Your task to perform on an android device: toggle data saver in the chrome app Image 0: 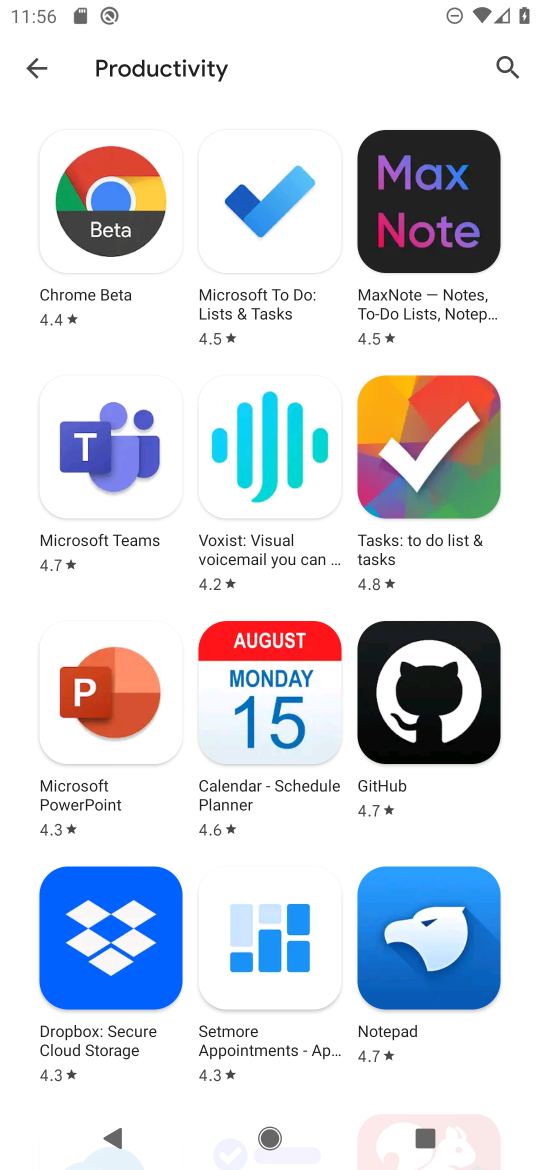
Step 0: press home button
Your task to perform on an android device: toggle data saver in the chrome app Image 1: 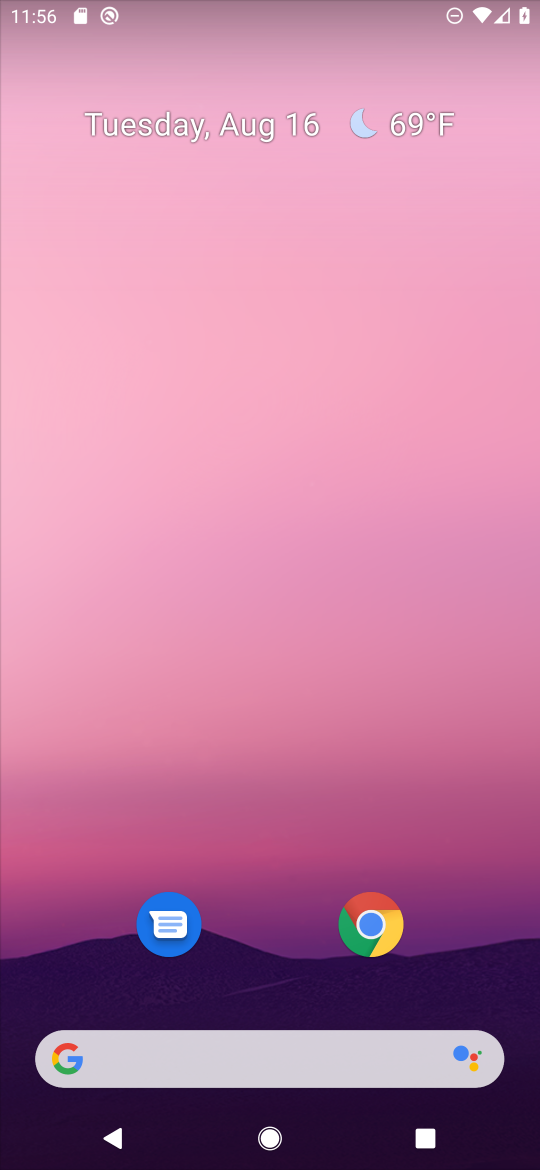
Step 1: click (365, 924)
Your task to perform on an android device: toggle data saver in the chrome app Image 2: 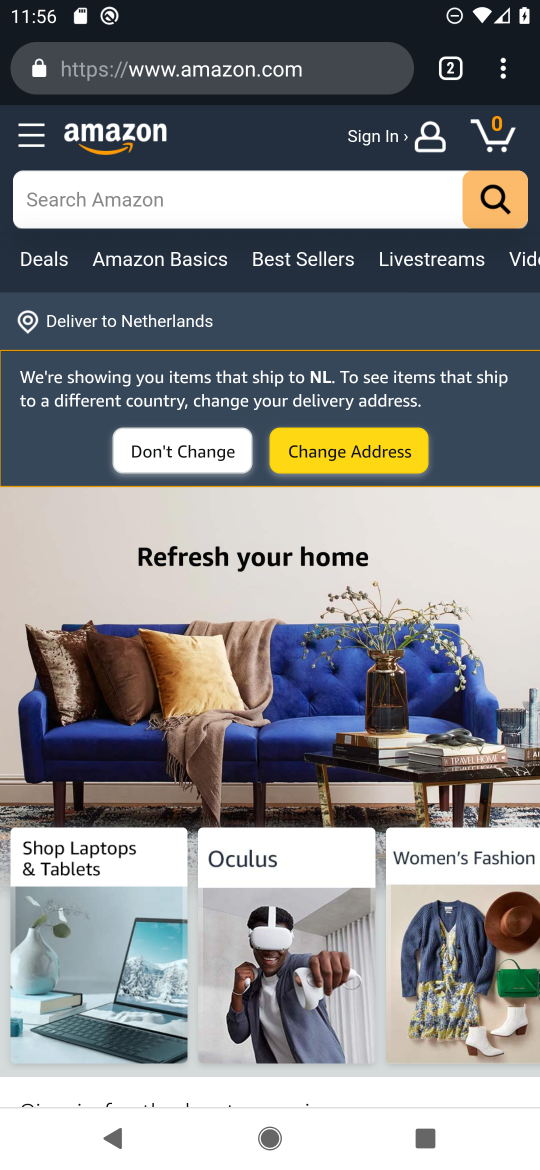
Step 2: click (517, 60)
Your task to perform on an android device: toggle data saver in the chrome app Image 3: 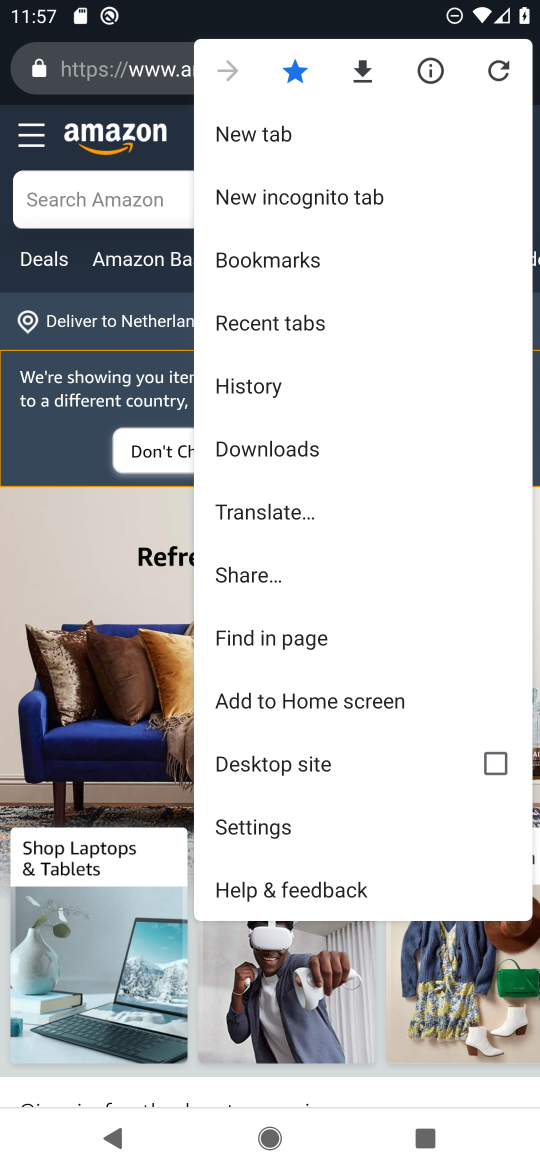
Step 3: click (295, 825)
Your task to perform on an android device: toggle data saver in the chrome app Image 4: 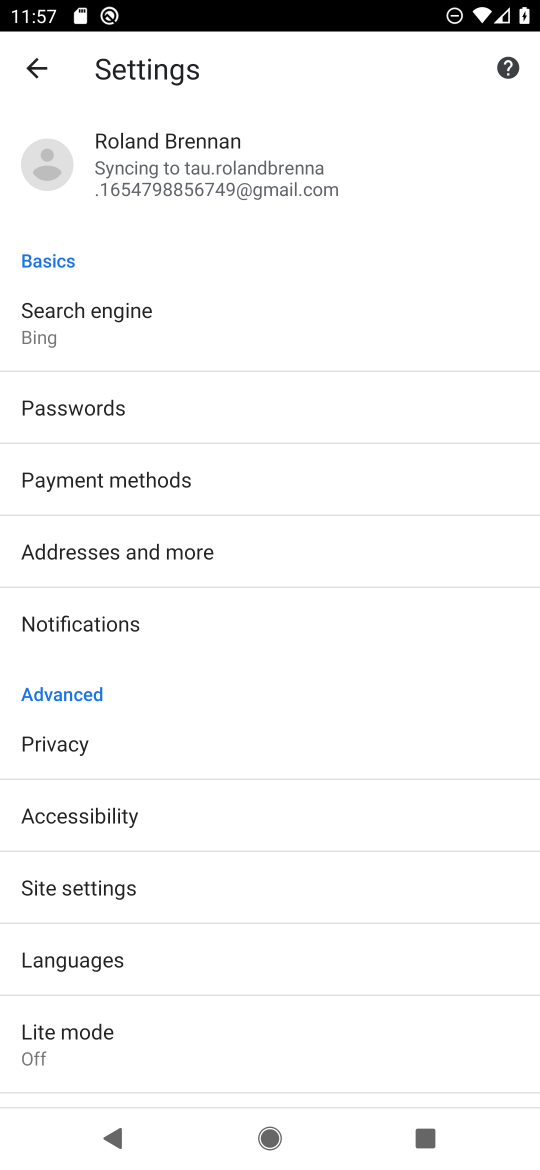
Step 4: click (167, 1039)
Your task to perform on an android device: toggle data saver in the chrome app Image 5: 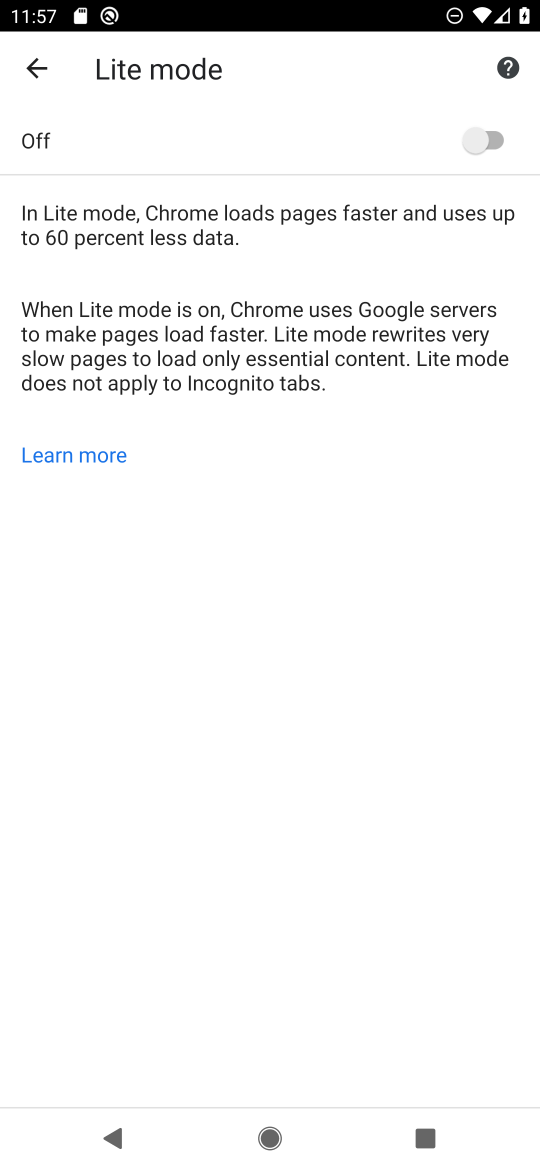
Step 5: click (485, 147)
Your task to perform on an android device: toggle data saver in the chrome app Image 6: 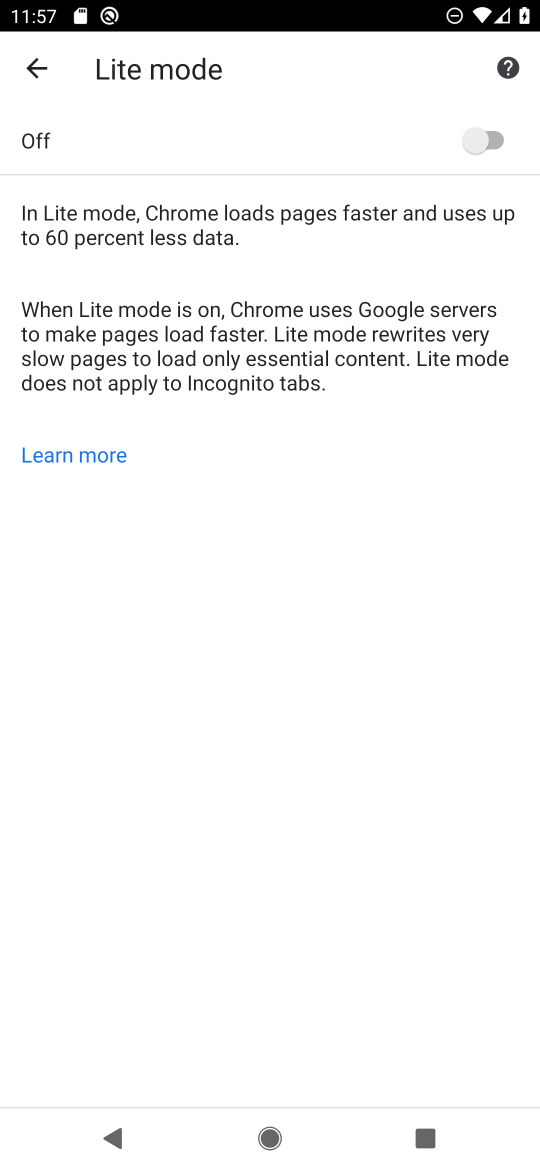
Step 6: click (485, 147)
Your task to perform on an android device: toggle data saver in the chrome app Image 7: 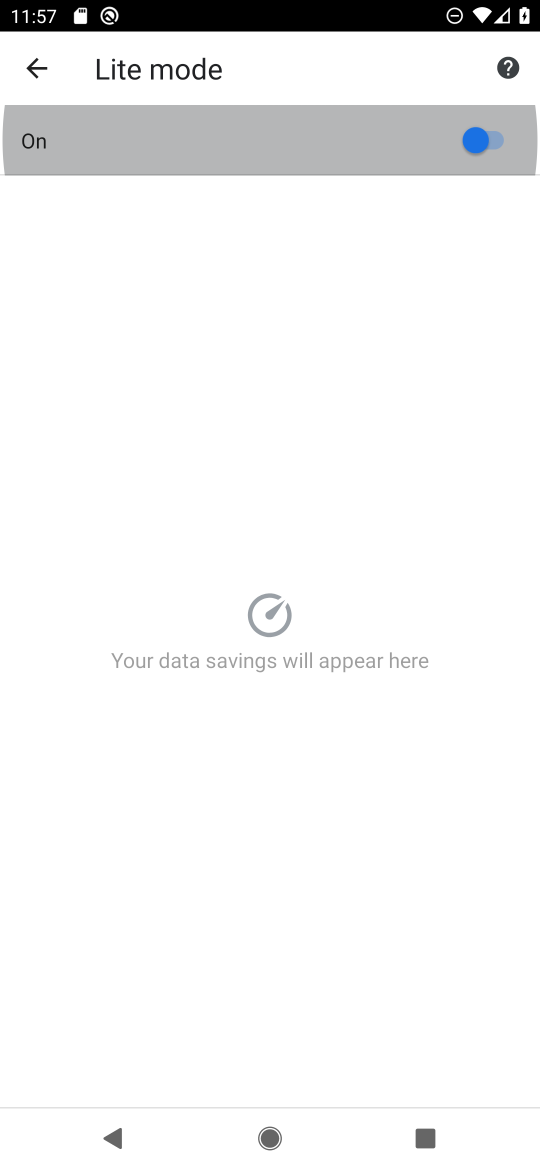
Step 7: click (485, 147)
Your task to perform on an android device: toggle data saver in the chrome app Image 8: 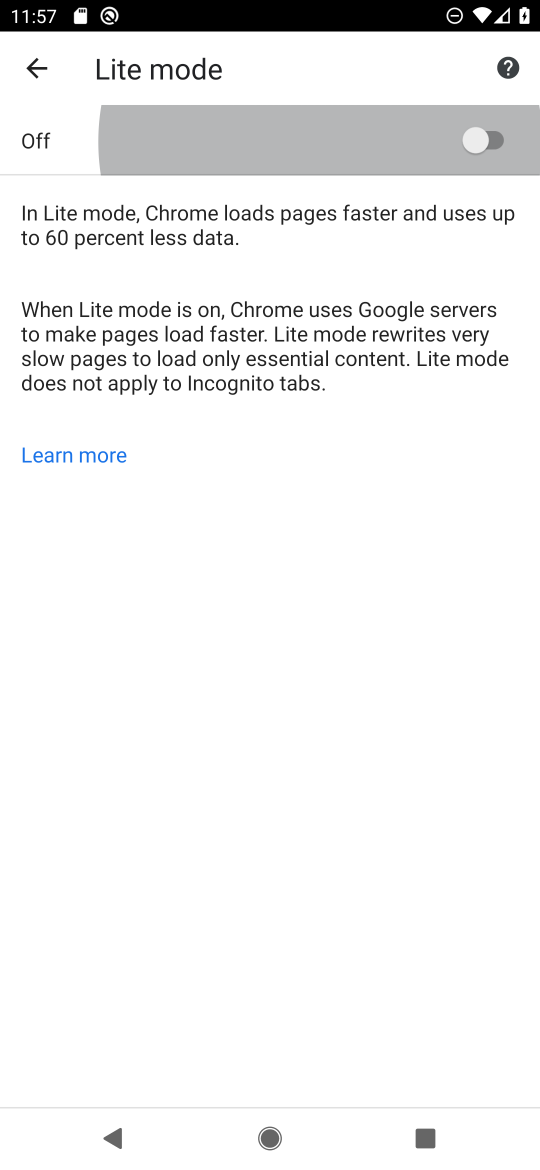
Step 8: click (485, 147)
Your task to perform on an android device: toggle data saver in the chrome app Image 9: 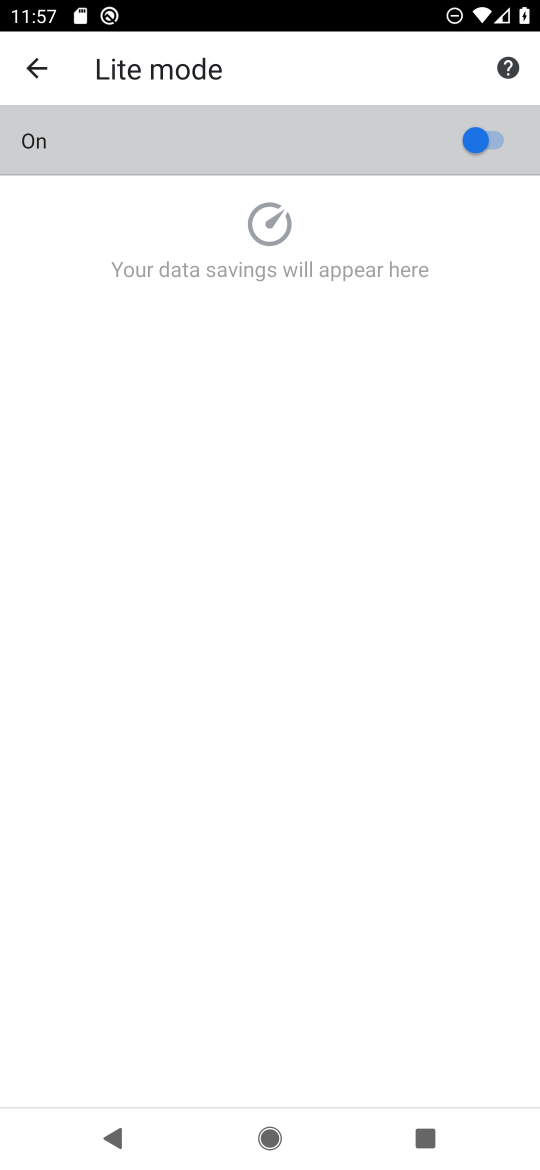
Step 9: click (485, 147)
Your task to perform on an android device: toggle data saver in the chrome app Image 10: 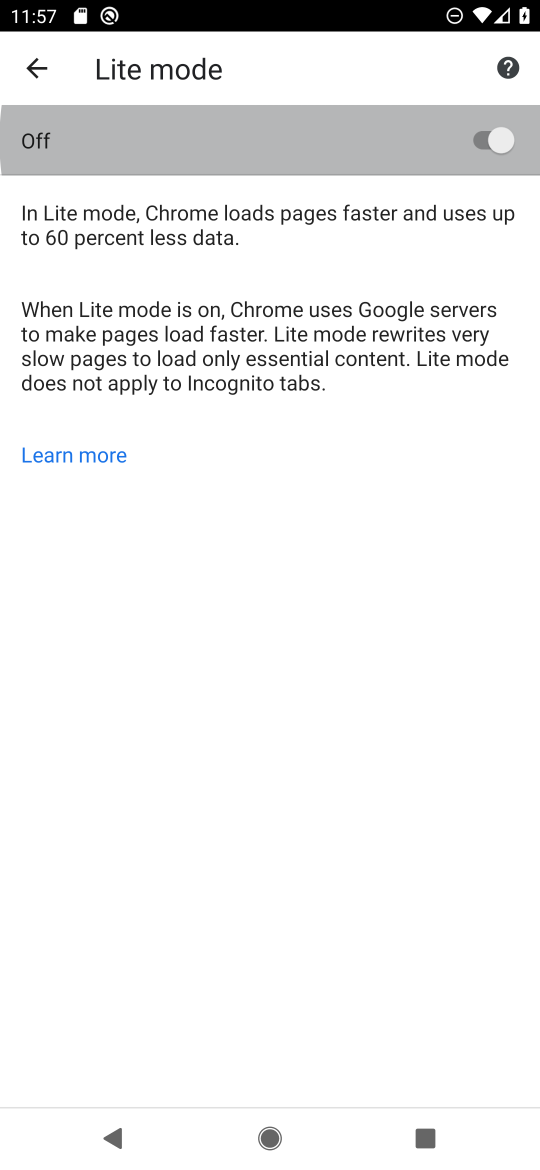
Step 10: click (485, 147)
Your task to perform on an android device: toggle data saver in the chrome app Image 11: 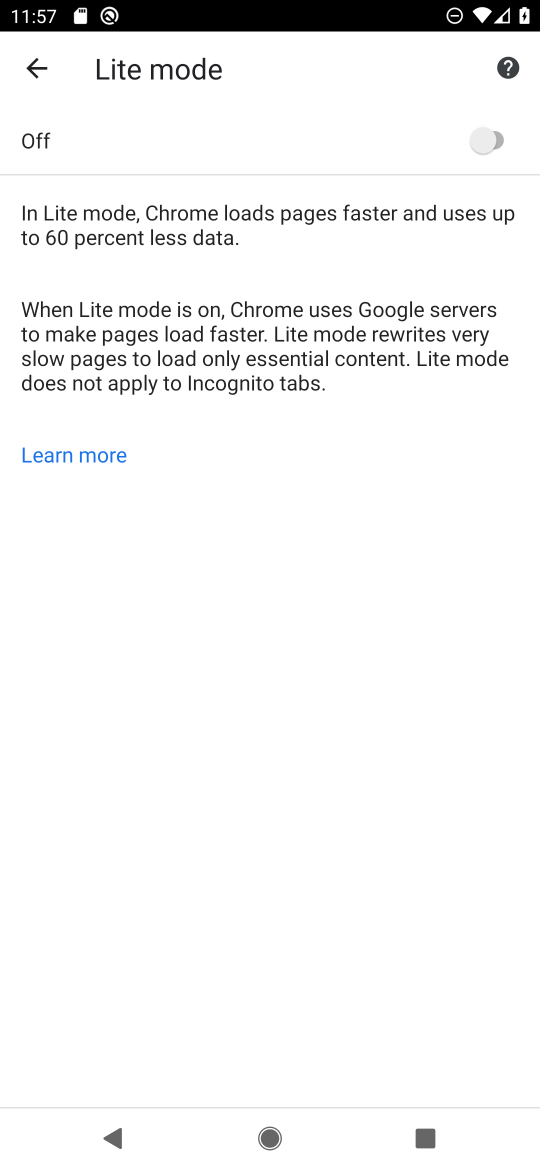
Step 11: click (485, 147)
Your task to perform on an android device: toggle data saver in the chrome app Image 12: 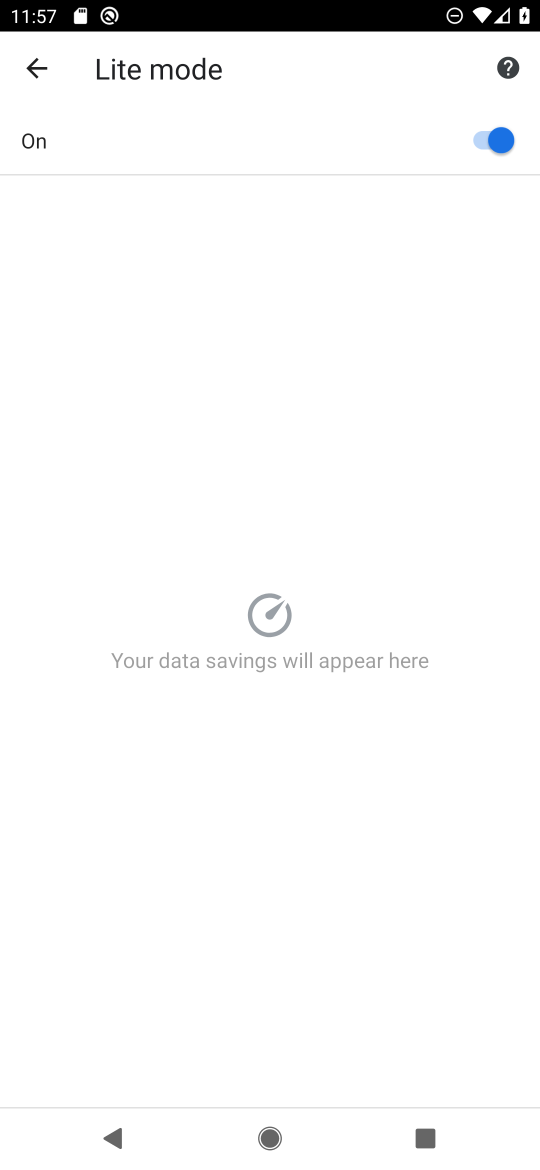
Step 12: click (485, 147)
Your task to perform on an android device: toggle data saver in the chrome app Image 13: 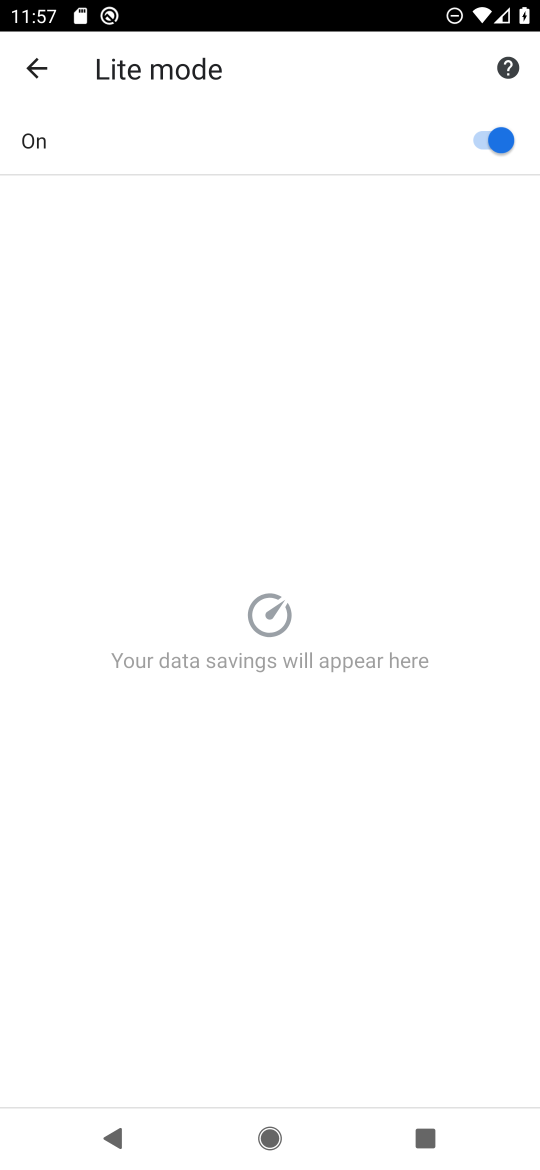
Step 13: click (485, 147)
Your task to perform on an android device: toggle data saver in the chrome app Image 14: 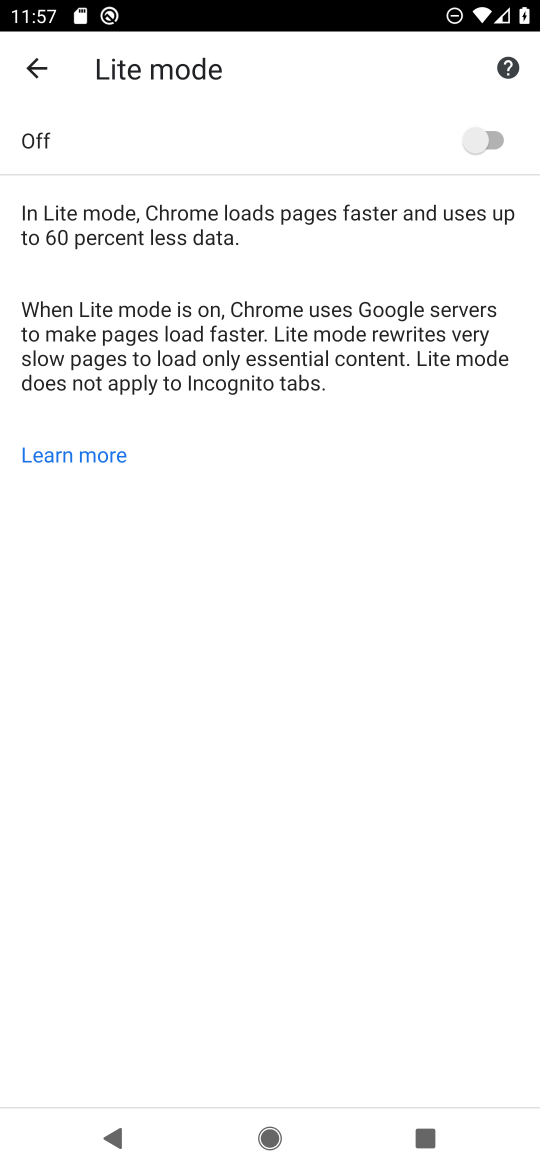
Step 14: task complete